Your task to perform on an android device: Open display settings Image 0: 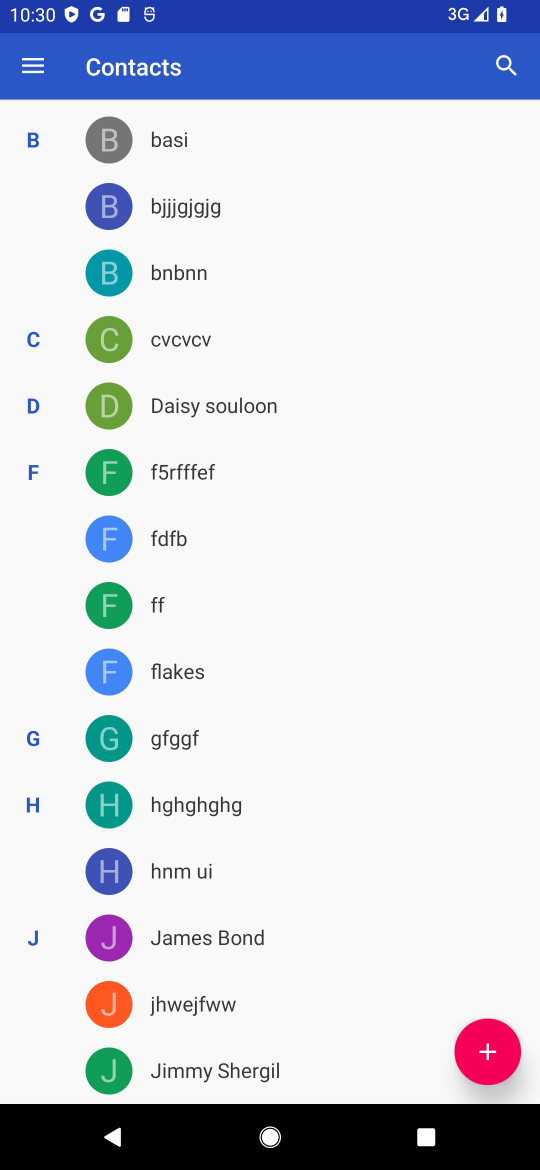
Step 0: press home button
Your task to perform on an android device: Open display settings Image 1: 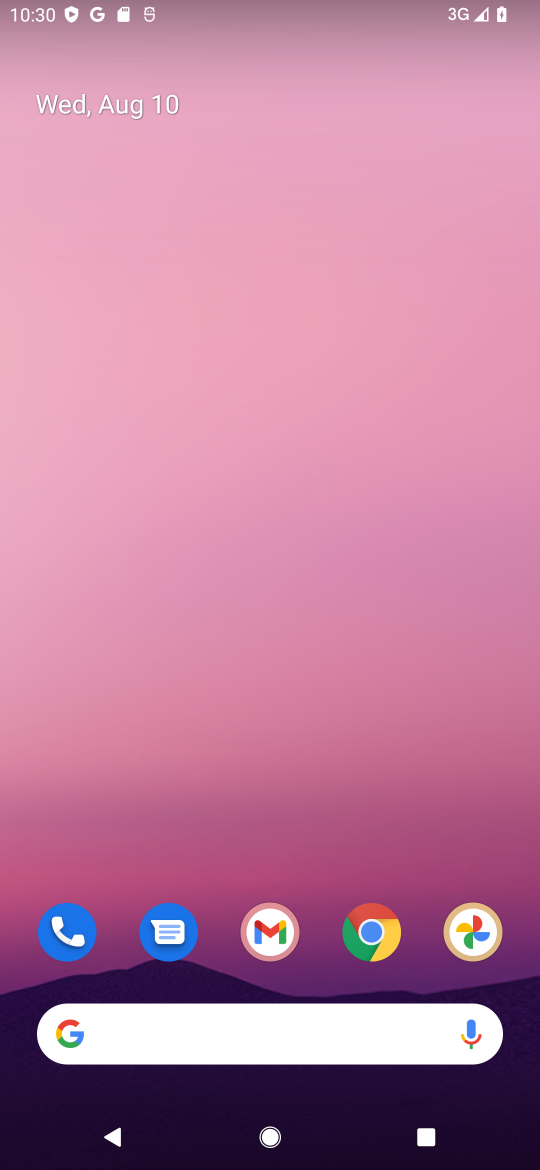
Step 1: drag from (303, 808) to (324, 151)
Your task to perform on an android device: Open display settings Image 2: 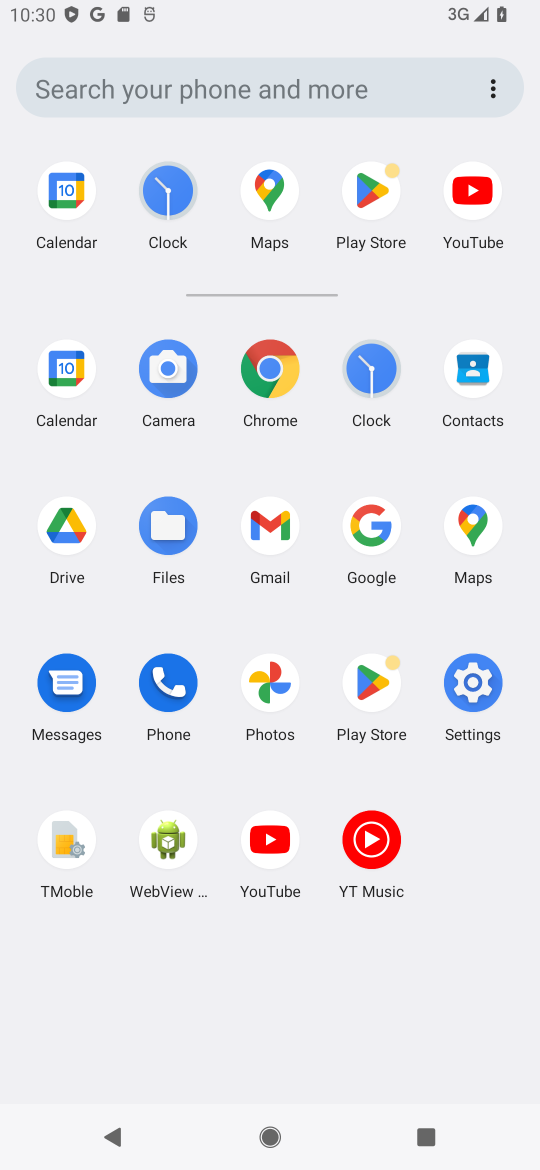
Step 2: click (472, 687)
Your task to perform on an android device: Open display settings Image 3: 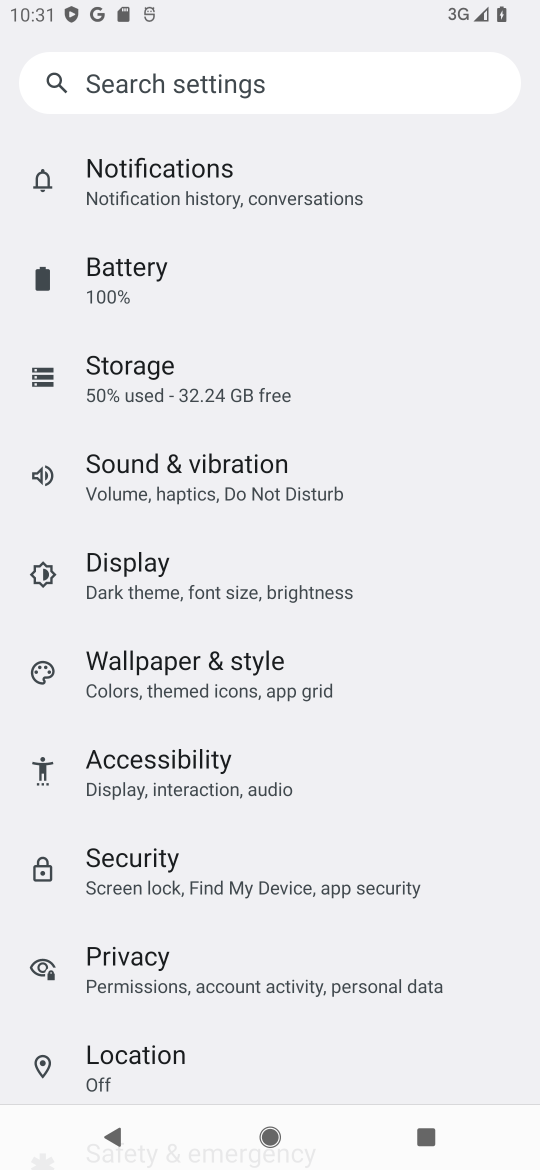
Step 3: click (136, 576)
Your task to perform on an android device: Open display settings Image 4: 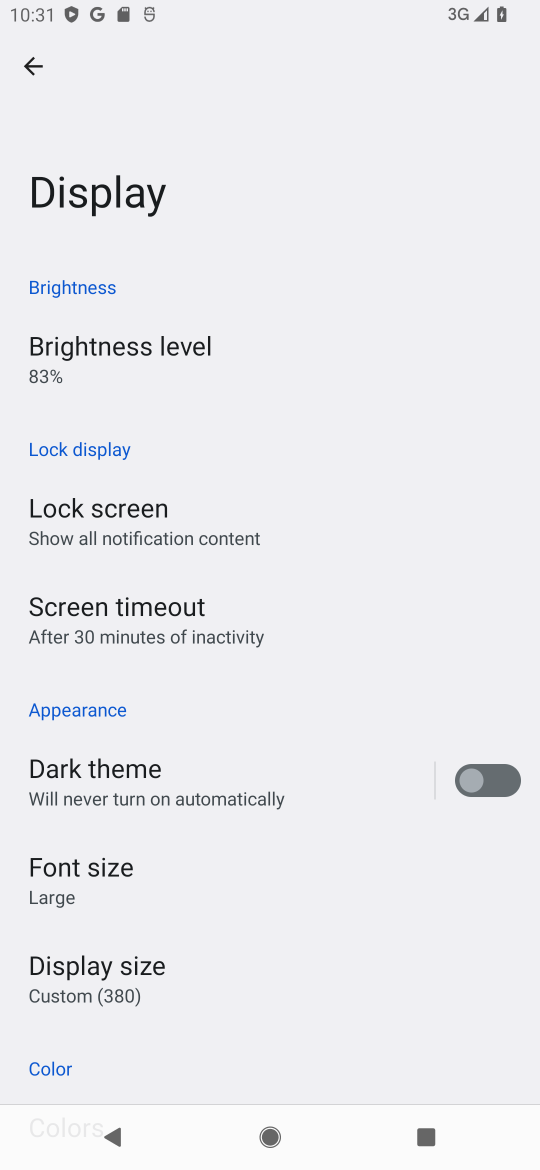
Step 4: task complete